Your task to perform on an android device: Open Yahoo.com Image 0: 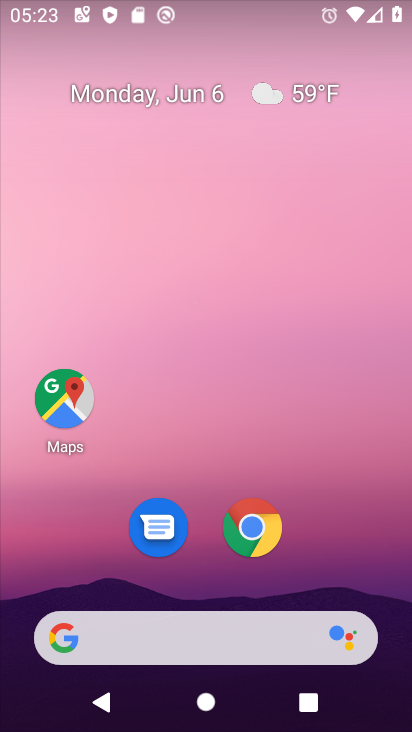
Step 0: click (247, 537)
Your task to perform on an android device: Open Yahoo.com Image 1: 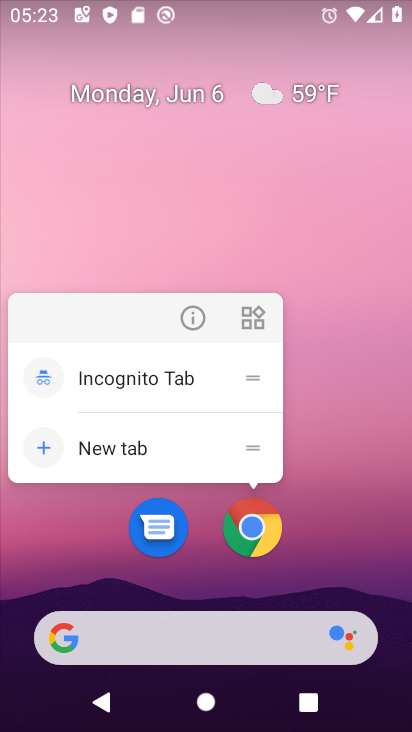
Step 1: click (257, 529)
Your task to perform on an android device: Open Yahoo.com Image 2: 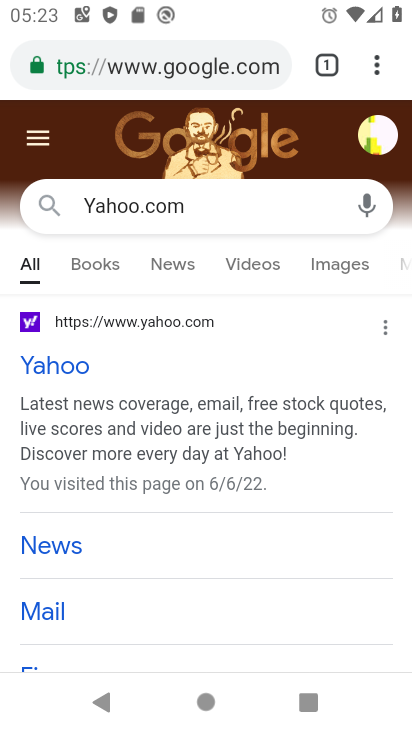
Step 2: task complete